Your task to perform on an android device: Show me productivity apps on the Play Store Image 0: 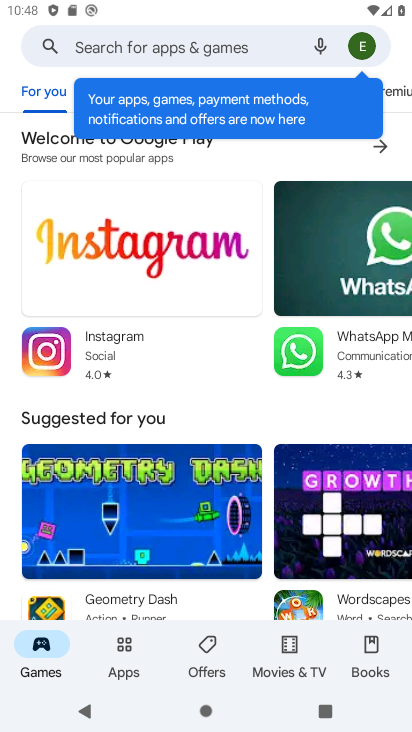
Step 0: press home button
Your task to perform on an android device: Show me productivity apps on the Play Store Image 1: 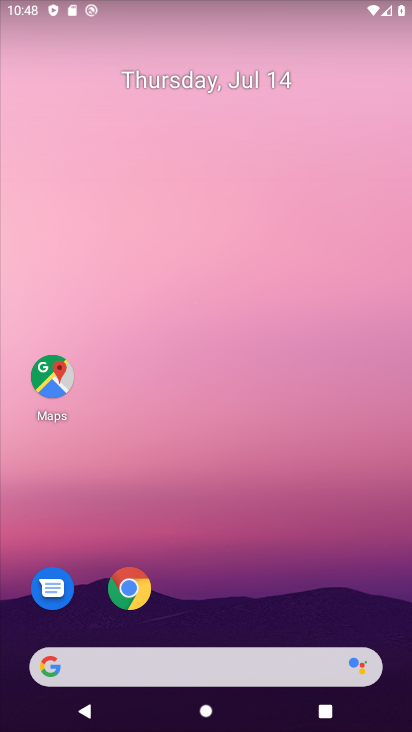
Step 1: drag from (250, 670) to (287, 153)
Your task to perform on an android device: Show me productivity apps on the Play Store Image 2: 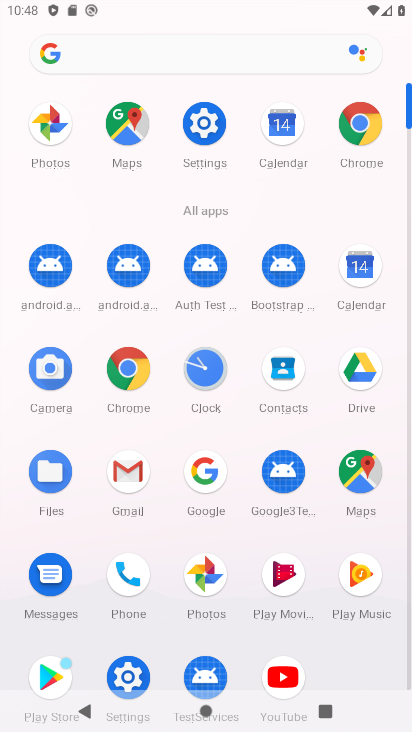
Step 2: drag from (164, 558) to (188, 393)
Your task to perform on an android device: Show me productivity apps on the Play Store Image 3: 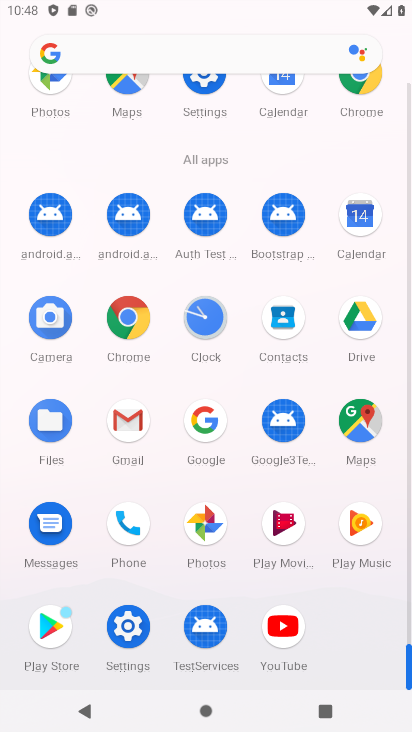
Step 3: click (70, 628)
Your task to perform on an android device: Show me productivity apps on the Play Store Image 4: 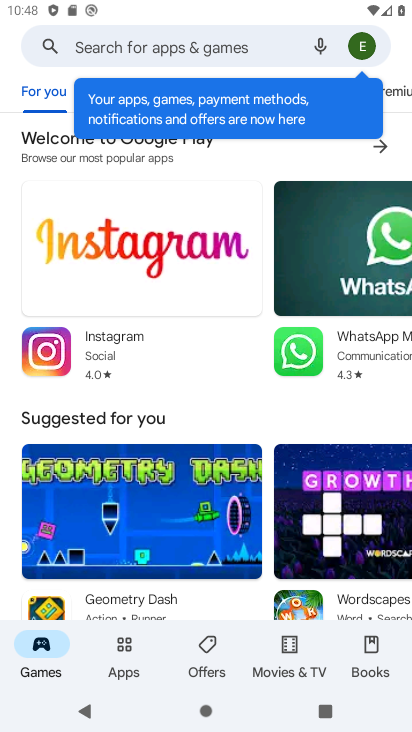
Step 4: click (119, 659)
Your task to perform on an android device: Show me productivity apps on the Play Store Image 5: 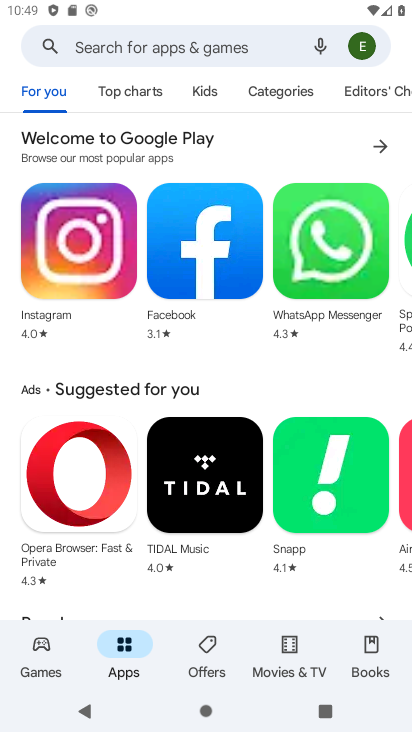
Step 5: click (268, 92)
Your task to perform on an android device: Show me productivity apps on the Play Store Image 6: 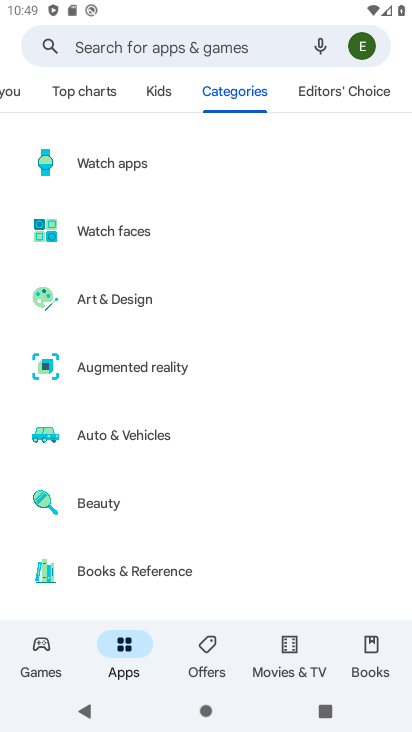
Step 6: drag from (155, 473) to (207, 339)
Your task to perform on an android device: Show me productivity apps on the Play Store Image 7: 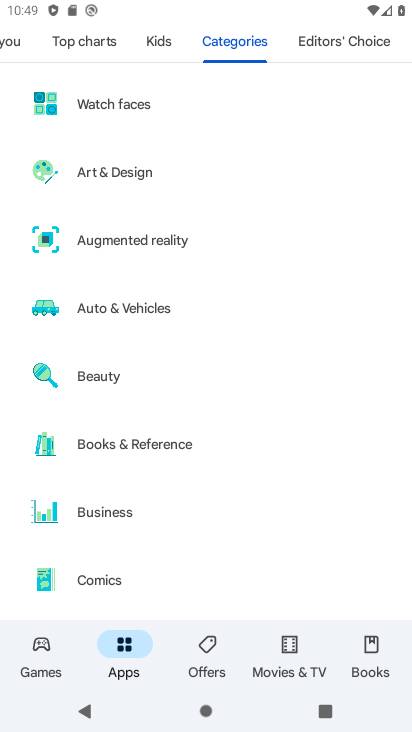
Step 7: drag from (150, 478) to (218, 343)
Your task to perform on an android device: Show me productivity apps on the Play Store Image 8: 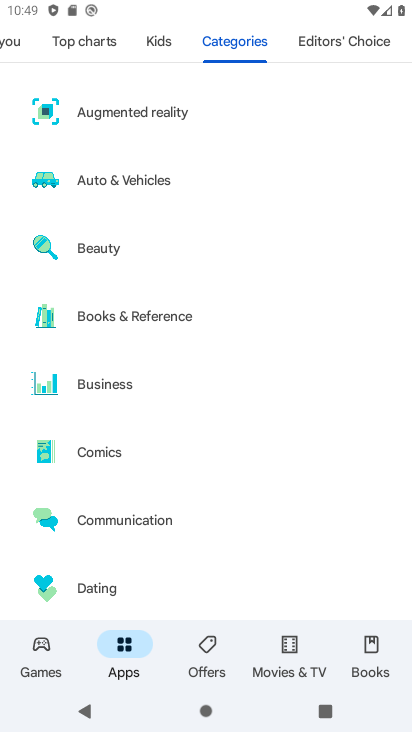
Step 8: drag from (143, 492) to (217, 377)
Your task to perform on an android device: Show me productivity apps on the Play Store Image 9: 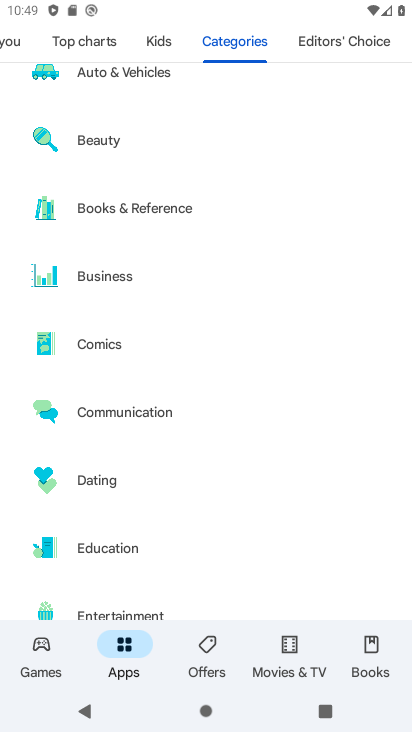
Step 9: drag from (135, 521) to (175, 392)
Your task to perform on an android device: Show me productivity apps on the Play Store Image 10: 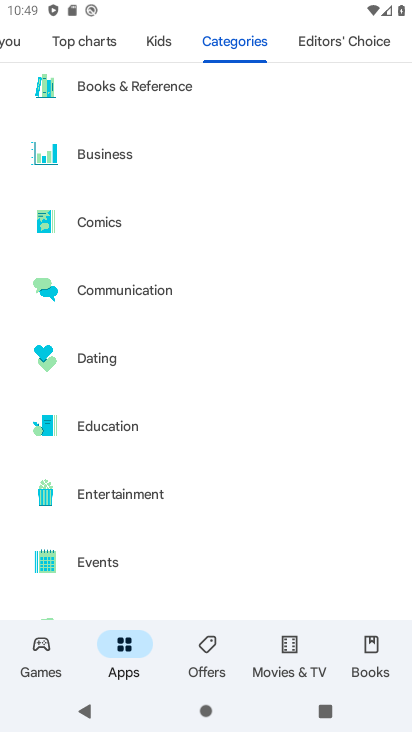
Step 10: drag from (125, 522) to (202, 421)
Your task to perform on an android device: Show me productivity apps on the Play Store Image 11: 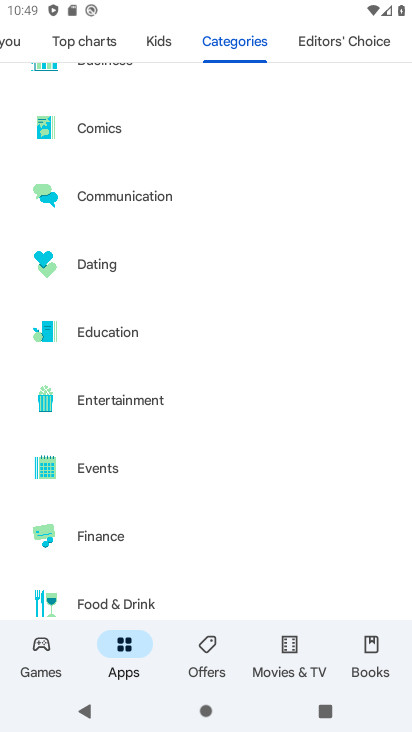
Step 11: drag from (127, 560) to (197, 447)
Your task to perform on an android device: Show me productivity apps on the Play Store Image 12: 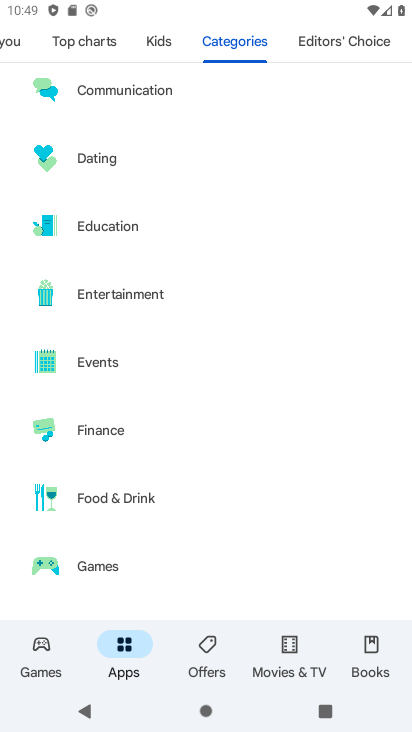
Step 12: drag from (122, 533) to (198, 418)
Your task to perform on an android device: Show me productivity apps on the Play Store Image 13: 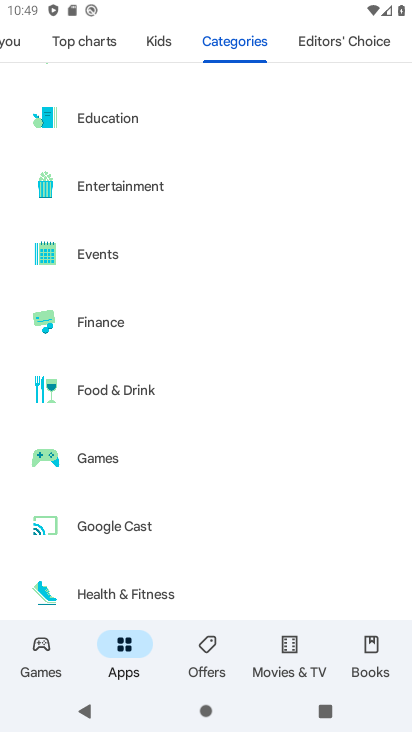
Step 13: drag from (115, 481) to (209, 346)
Your task to perform on an android device: Show me productivity apps on the Play Store Image 14: 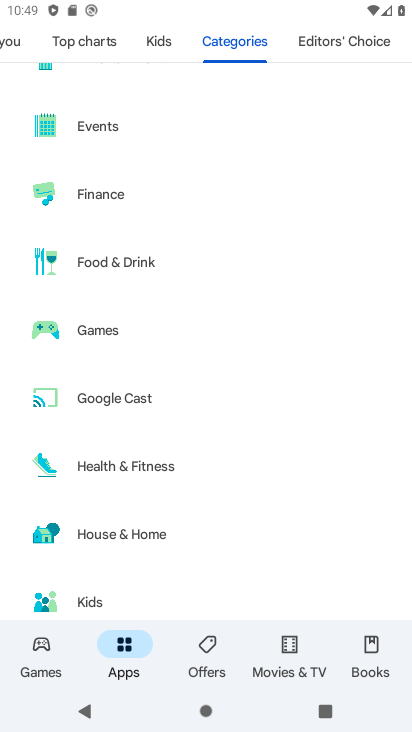
Step 14: drag from (117, 486) to (206, 376)
Your task to perform on an android device: Show me productivity apps on the Play Store Image 15: 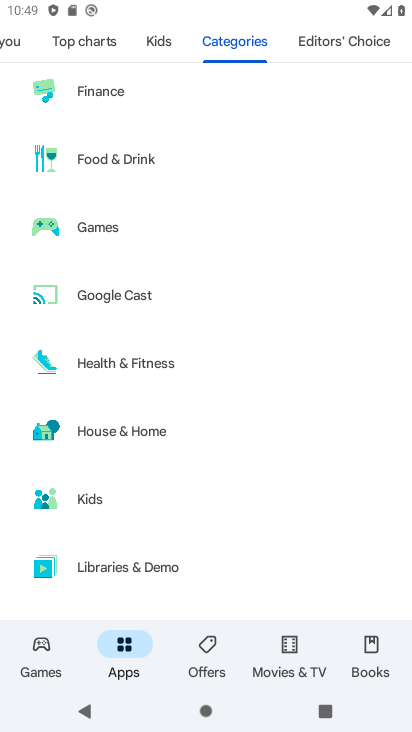
Step 15: drag from (122, 468) to (216, 355)
Your task to perform on an android device: Show me productivity apps on the Play Store Image 16: 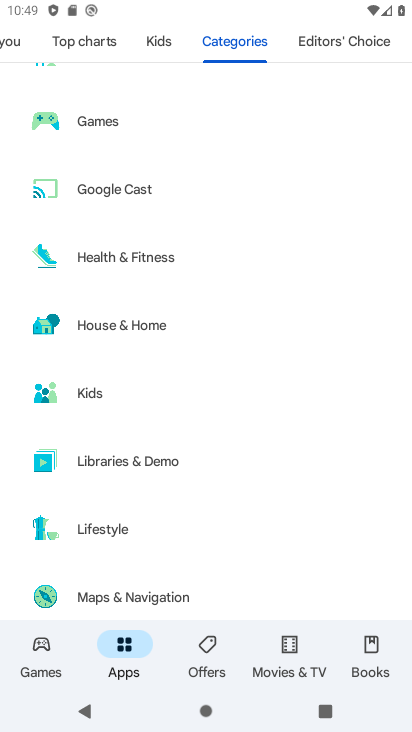
Step 16: drag from (108, 502) to (219, 381)
Your task to perform on an android device: Show me productivity apps on the Play Store Image 17: 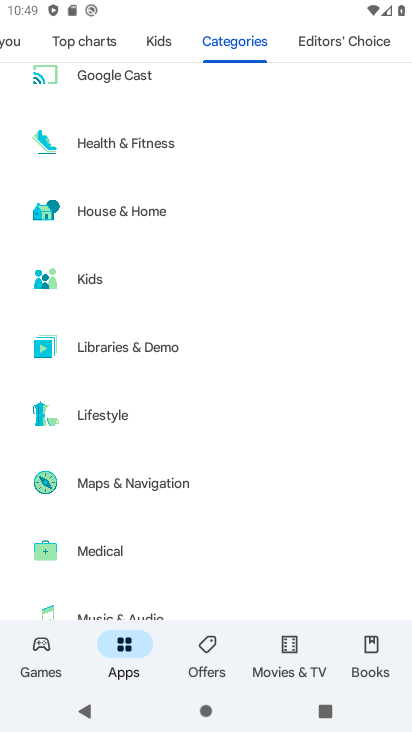
Step 17: drag from (109, 502) to (188, 405)
Your task to perform on an android device: Show me productivity apps on the Play Store Image 18: 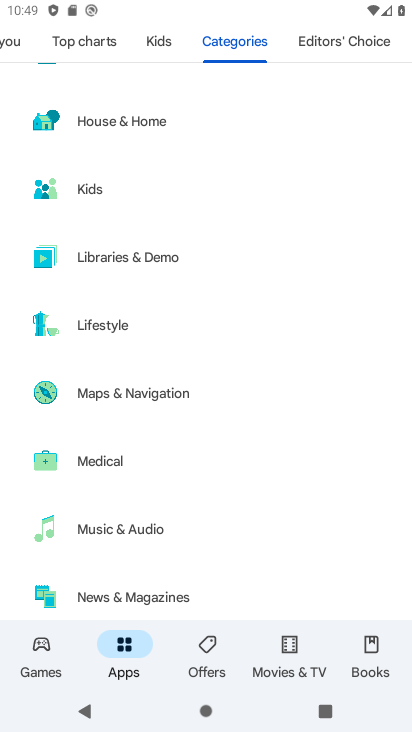
Step 18: drag from (97, 547) to (193, 428)
Your task to perform on an android device: Show me productivity apps on the Play Store Image 19: 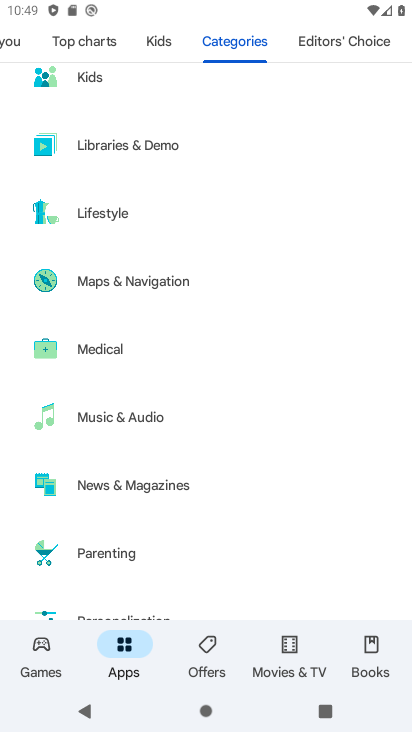
Step 19: drag from (107, 521) to (177, 434)
Your task to perform on an android device: Show me productivity apps on the Play Store Image 20: 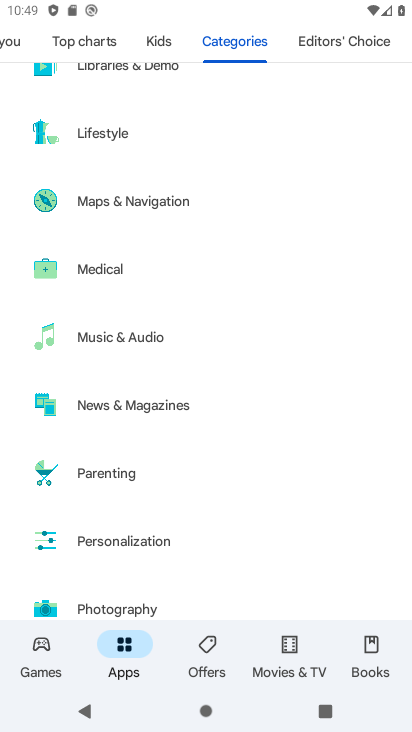
Step 20: drag from (116, 557) to (201, 428)
Your task to perform on an android device: Show me productivity apps on the Play Store Image 21: 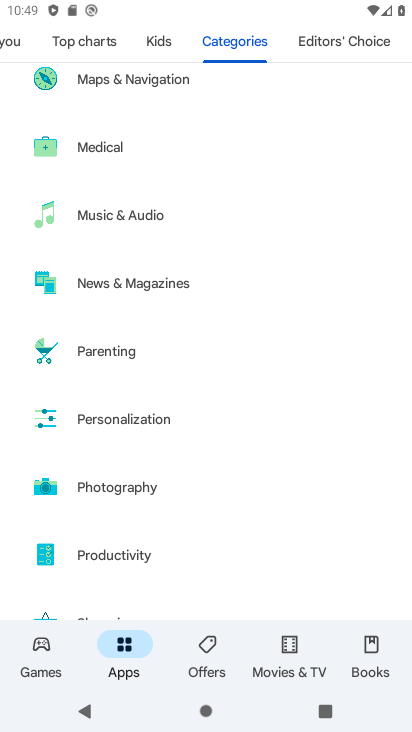
Step 21: drag from (132, 525) to (222, 397)
Your task to perform on an android device: Show me productivity apps on the Play Store Image 22: 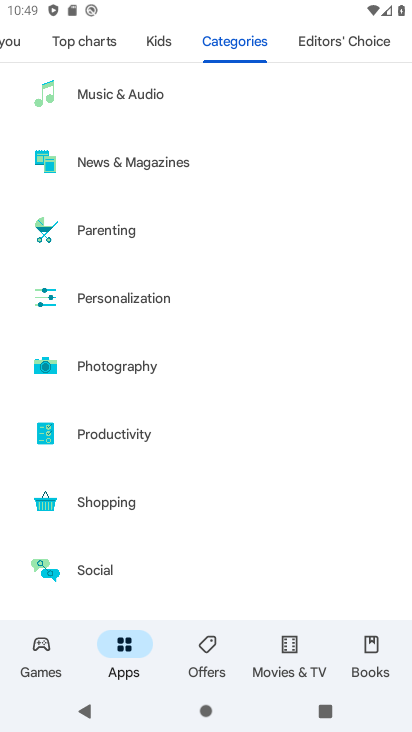
Step 22: click (133, 442)
Your task to perform on an android device: Show me productivity apps on the Play Store Image 23: 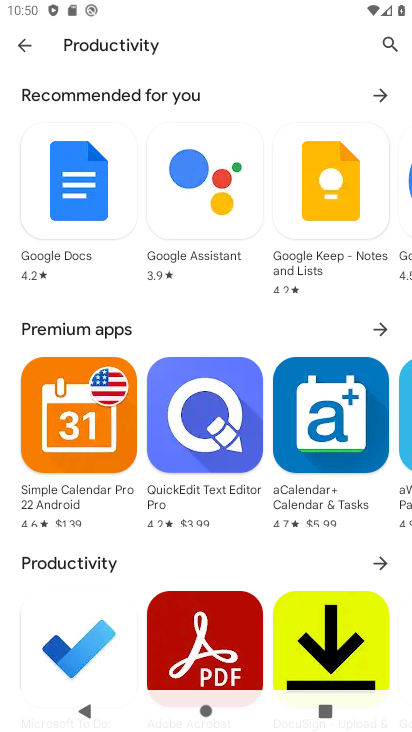
Step 23: task complete